Your task to perform on an android device: What's the weather? Image 0: 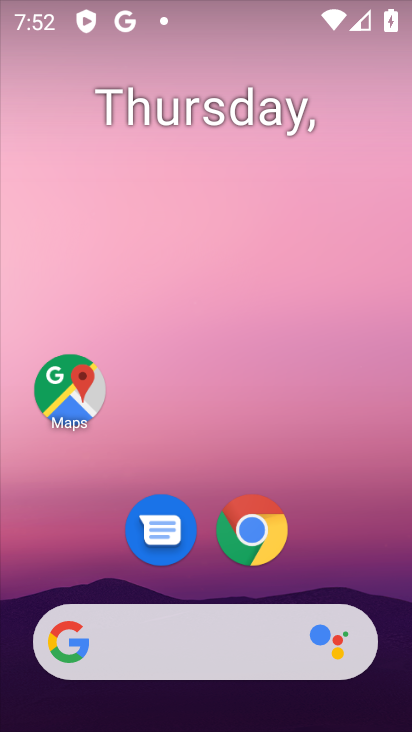
Step 0: press home button
Your task to perform on an android device: What's the weather? Image 1: 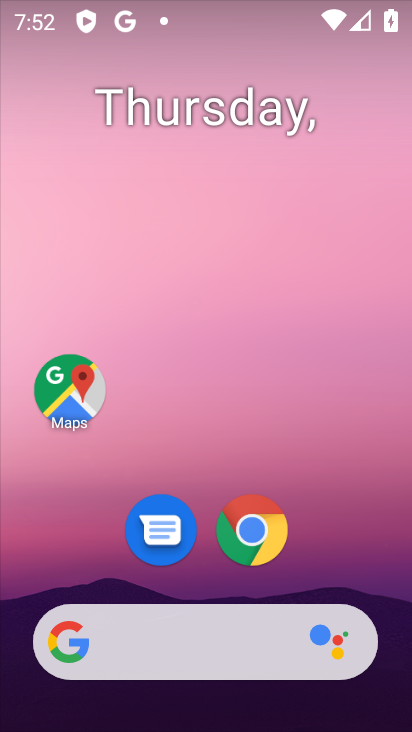
Step 1: click (80, 654)
Your task to perform on an android device: What's the weather? Image 2: 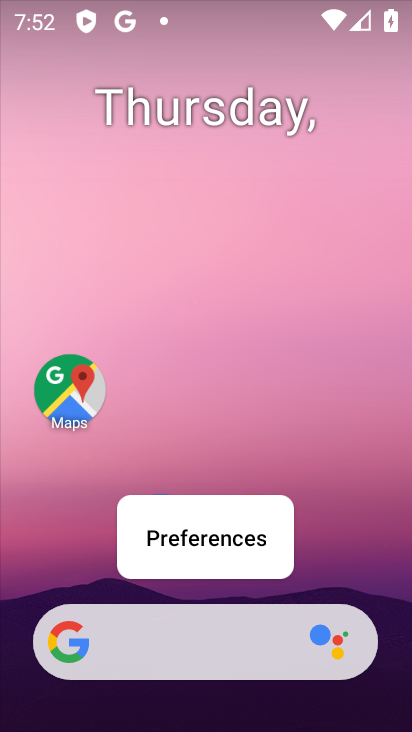
Step 2: click (76, 643)
Your task to perform on an android device: What's the weather? Image 3: 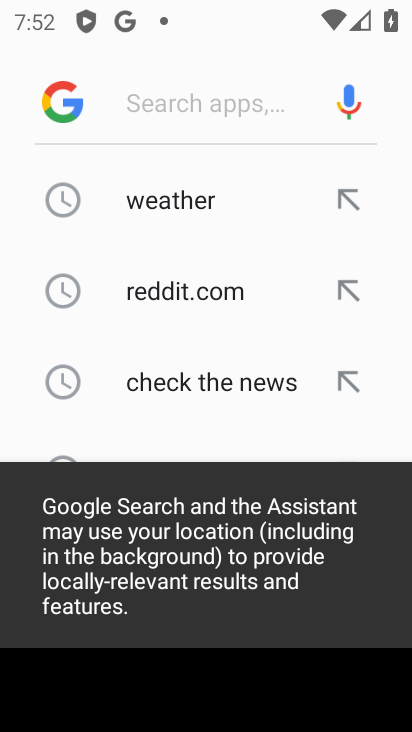
Step 3: click (192, 202)
Your task to perform on an android device: What's the weather? Image 4: 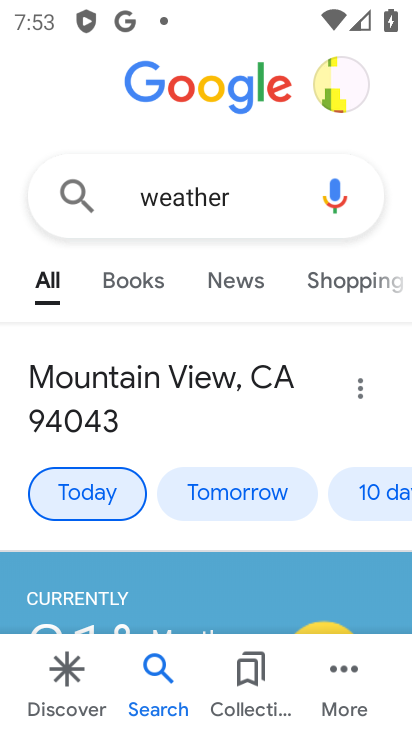
Step 4: task complete